Your task to perform on an android device: open a bookmark in the chrome app Image 0: 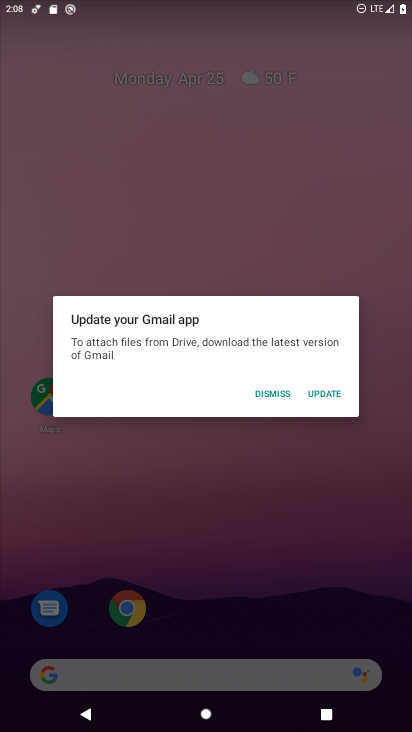
Step 0: press home button
Your task to perform on an android device: open a bookmark in the chrome app Image 1: 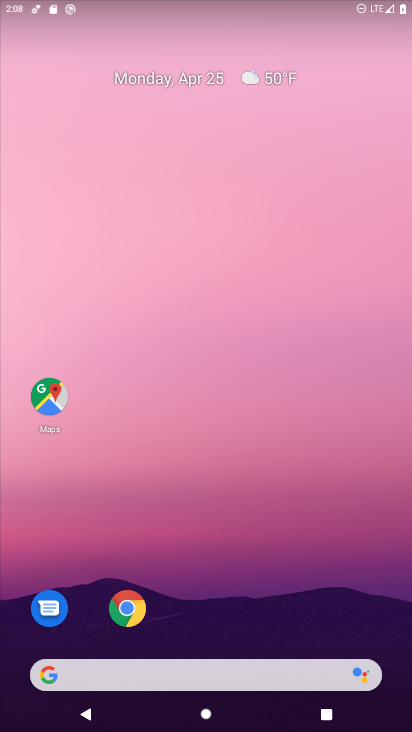
Step 1: drag from (344, 602) to (264, 61)
Your task to perform on an android device: open a bookmark in the chrome app Image 2: 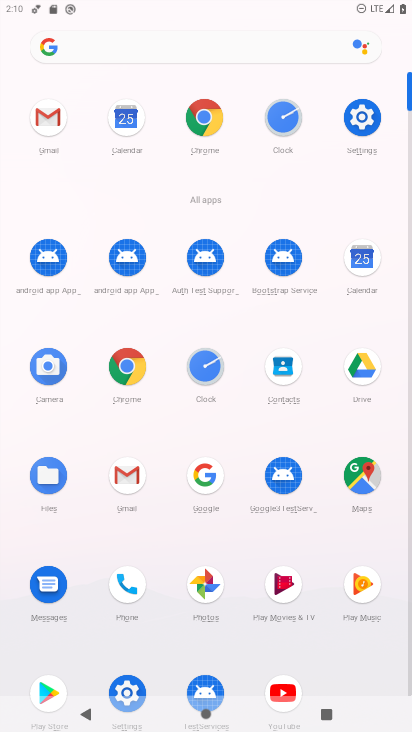
Step 2: click (143, 370)
Your task to perform on an android device: open a bookmark in the chrome app Image 3: 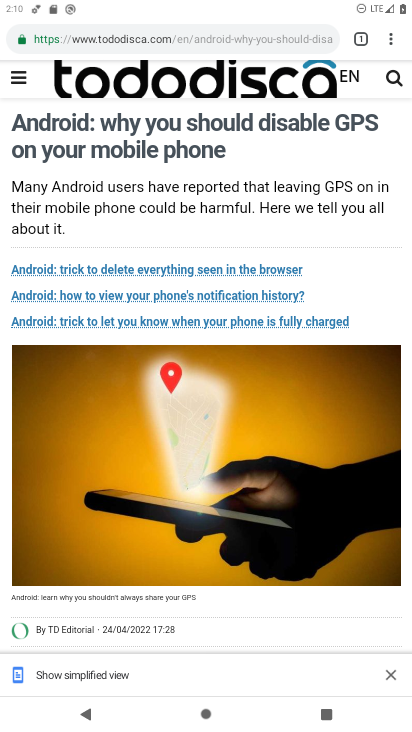
Step 3: press back button
Your task to perform on an android device: open a bookmark in the chrome app Image 4: 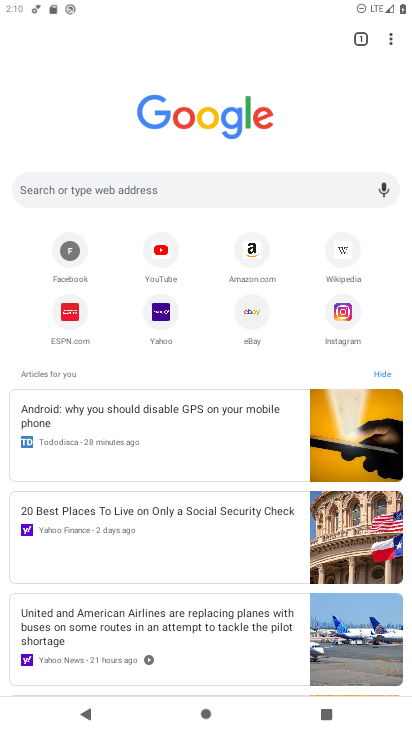
Step 4: click (390, 34)
Your task to perform on an android device: open a bookmark in the chrome app Image 5: 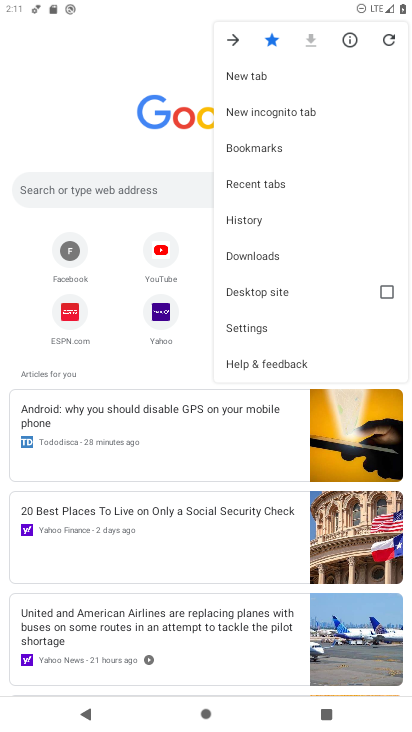
Step 5: click (283, 152)
Your task to perform on an android device: open a bookmark in the chrome app Image 6: 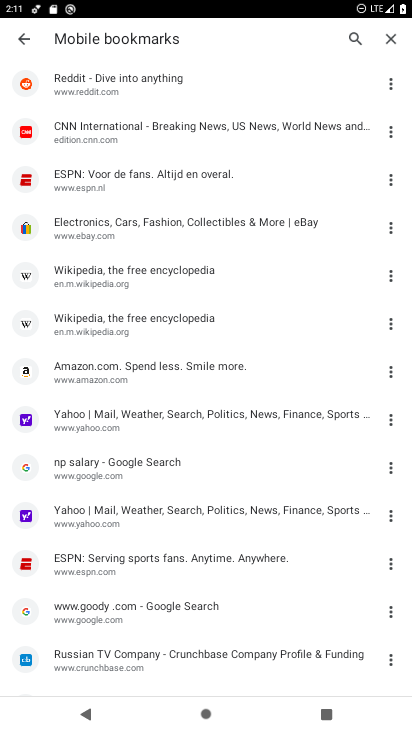
Step 6: task complete